Your task to perform on an android device: change text size in settings app Image 0: 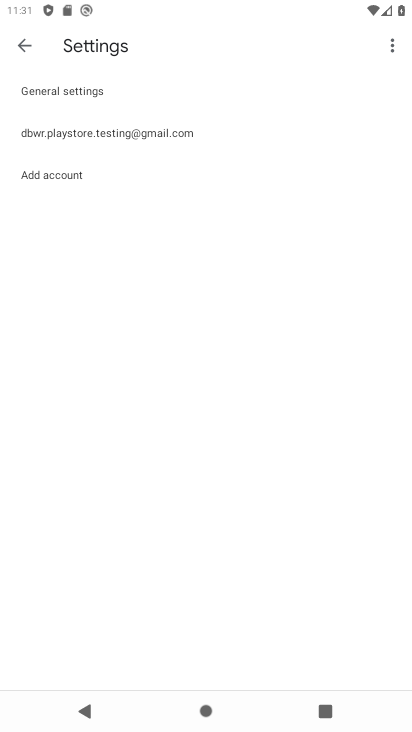
Step 0: press home button
Your task to perform on an android device: change text size in settings app Image 1: 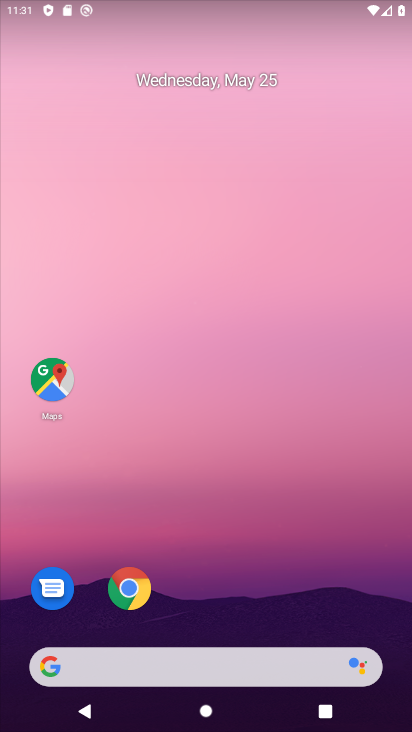
Step 1: drag from (233, 550) to (323, 252)
Your task to perform on an android device: change text size in settings app Image 2: 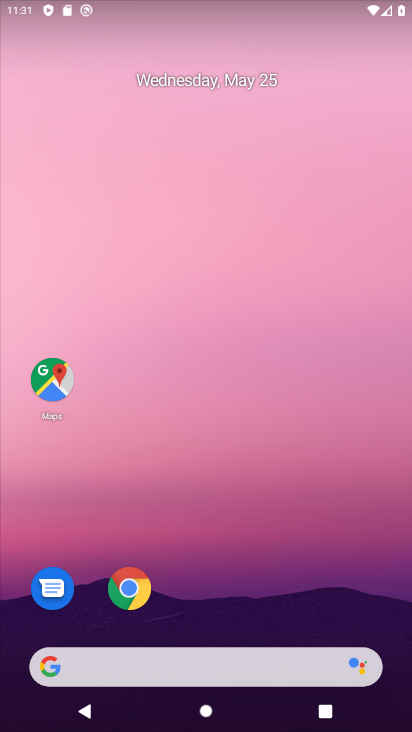
Step 2: drag from (229, 592) to (270, 160)
Your task to perform on an android device: change text size in settings app Image 3: 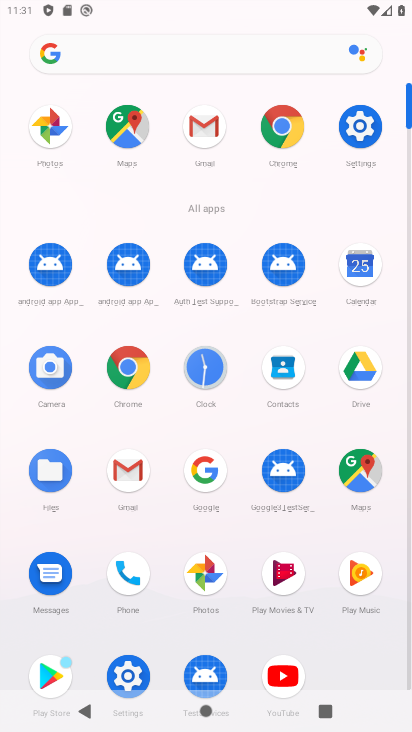
Step 3: click (357, 125)
Your task to perform on an android device: change text size in settings app Image 4: 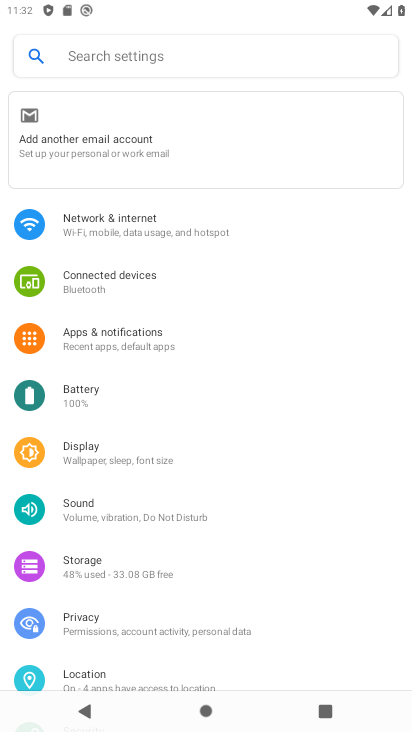
Step 4: drag from (163, 588) to (197, 320)
Your task to perform on an android device: change text size in settings app Image 5: 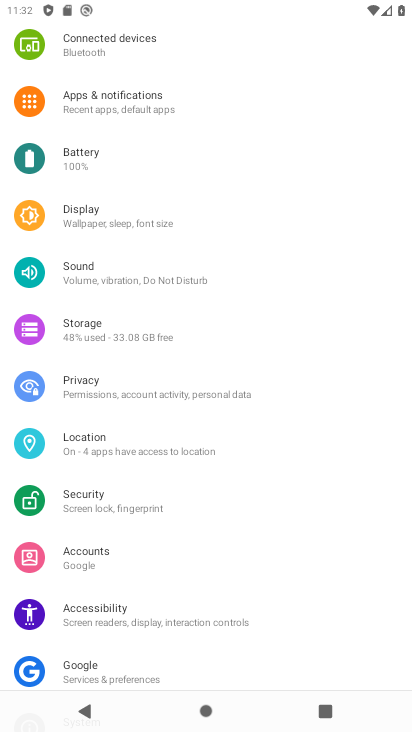
Step 5: click (127, 218)
Your task to perform on an android device: change text size in settings app Image 6: 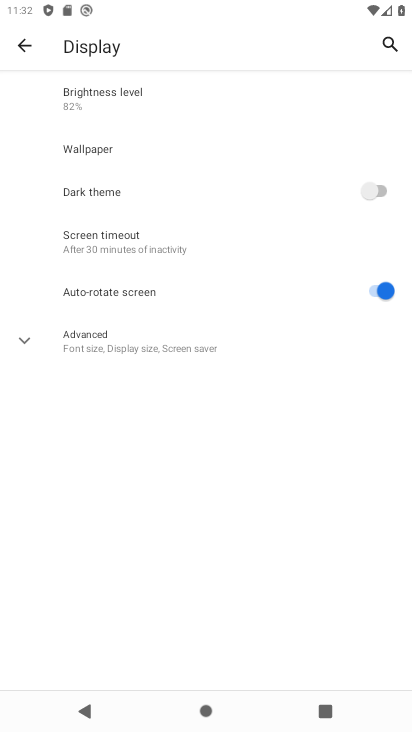
Step 6: click (25, 337)
Your task to perform on an android device: change text size in settings app Image 7: 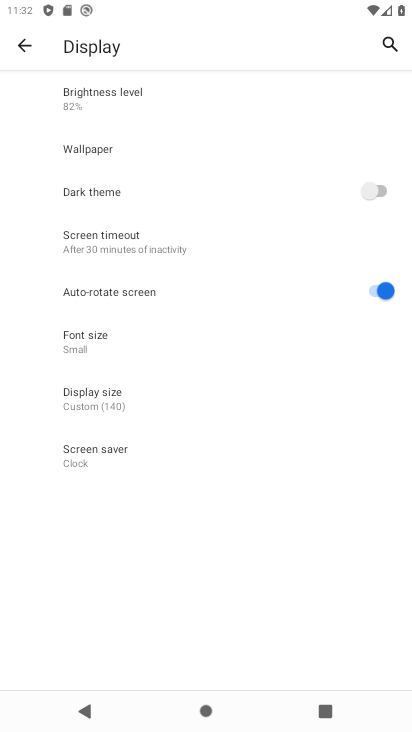
Step 7: click (94, 346)
Your task to perform on an android device: change text size in settings app Image 8: 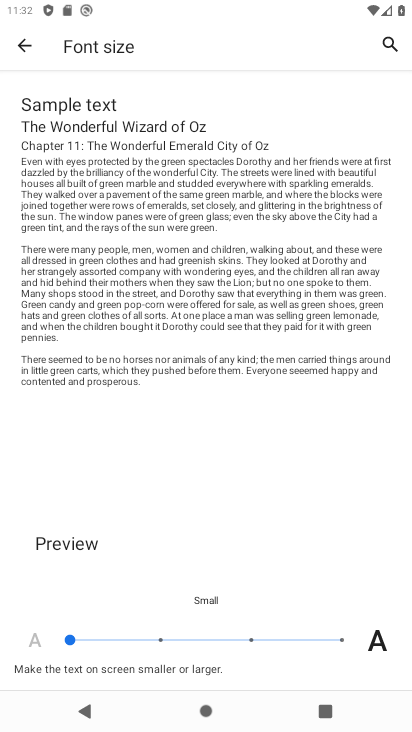
Step 8: task complete